Your task to perform on an android device: clear history in the chrome app Image 0: 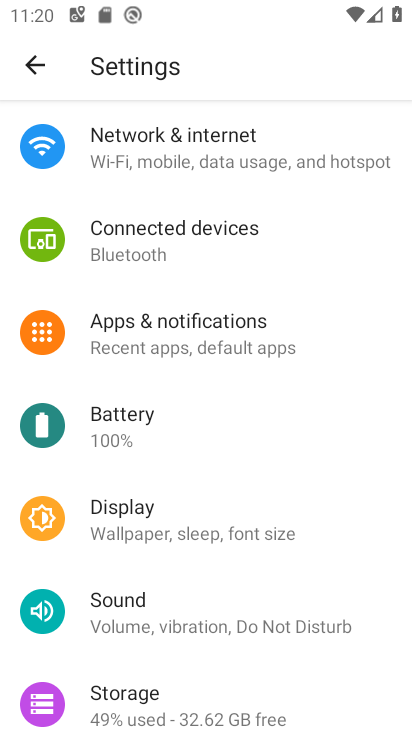
Step 0: press home button
Your task to perform on an android device: clear history in the chrome app Image 1: 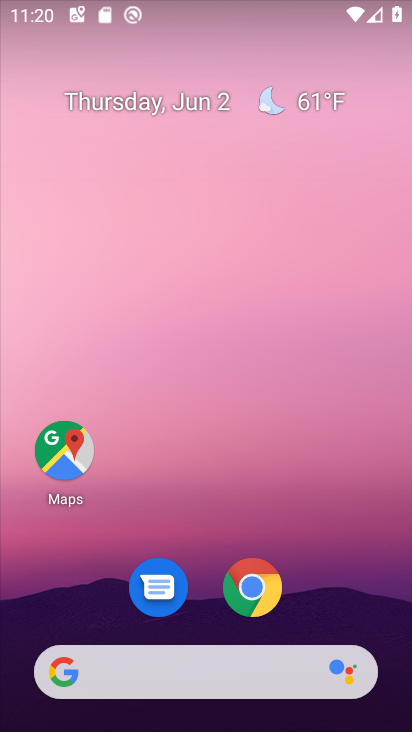
Step 1: click (258, 588)
Your task to perform on an android device: clear history in the chrome app Image 2: 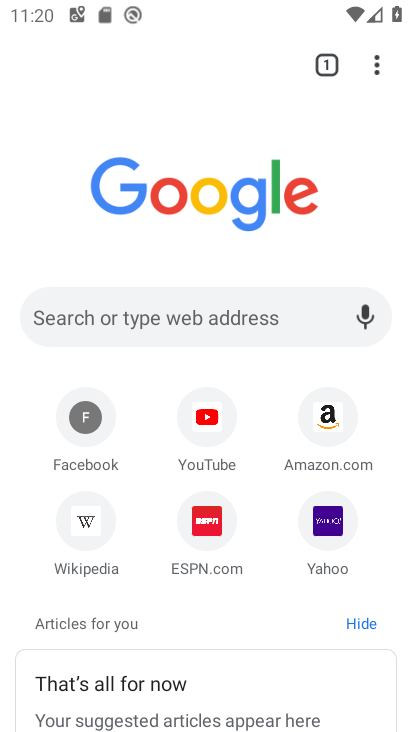
Step 2: click (367, 67)
Your task to perform on an android device: clear history in the chrome app Image 3: 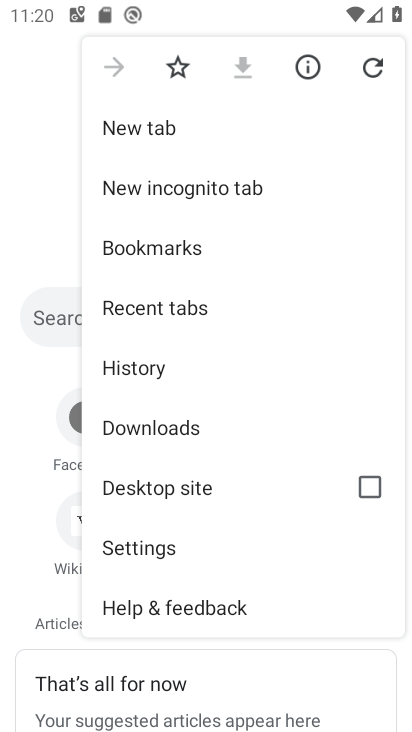
Step 3: click (171, 367)
Your task to perform on an android device: clear history in the chrome app Image 4: 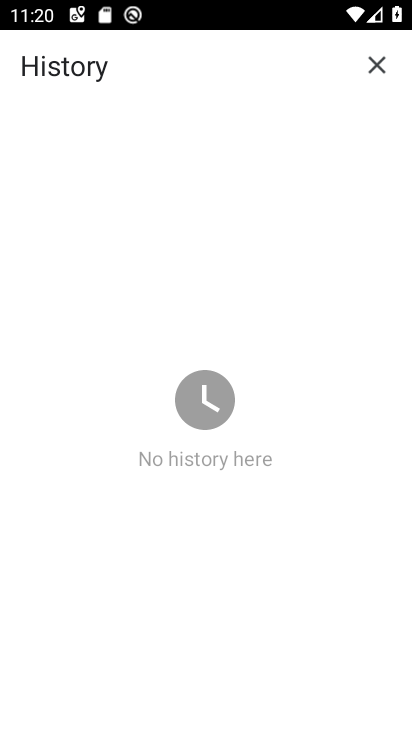
Step 4: task complete